Your task to perform on an android device: turn on airplane mode Image 0: 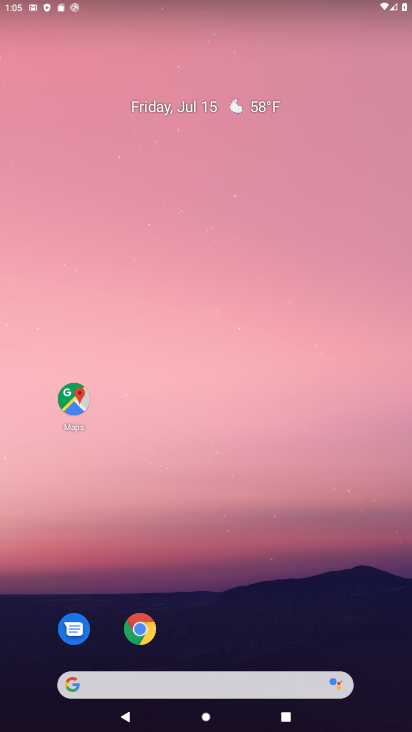
Step 0: drag from (211, 478) to (290, 131)
Your task to perform on an android device: turn on airplane mode Image 1: 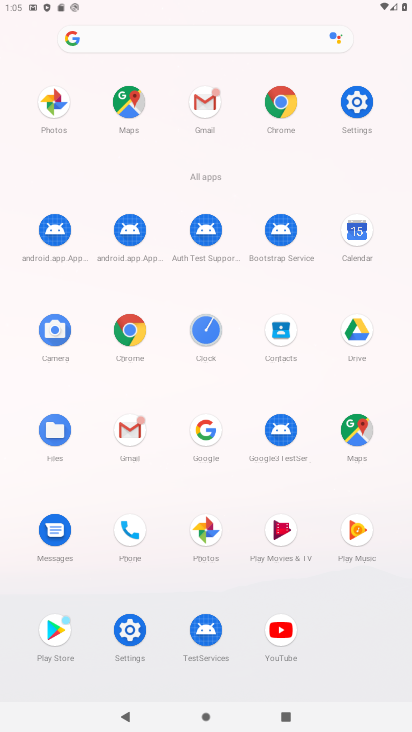
Step 1: click (355, 103)
Your task to perform on an android device: turn on airplane mode Image 2: 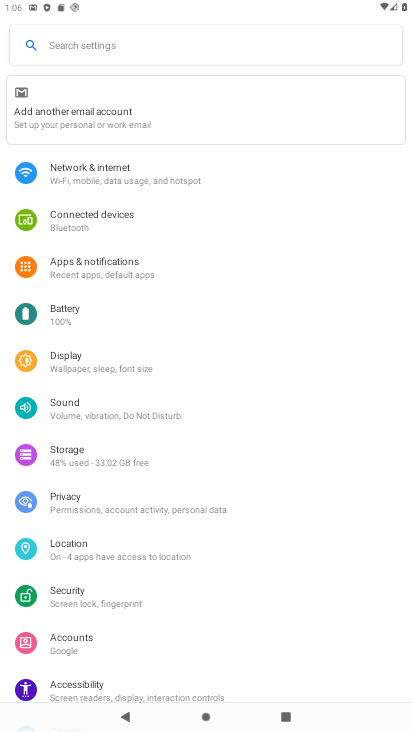
Step 2: click (175, 183)
Your task to perform on an android device: turn on airplane mode Image 3: 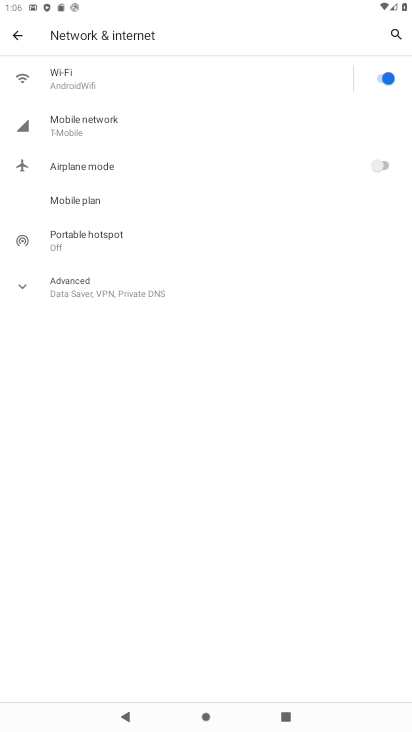
Step 3: click (387, 158)
Your task to perform on an android device: turn on airplane mode Image 4: 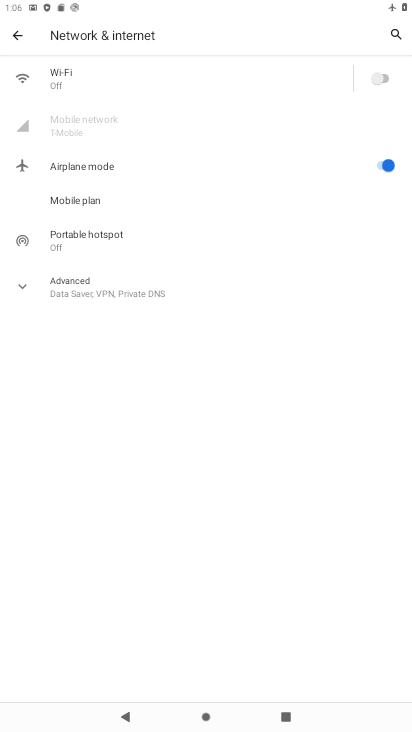
Step 4: task complete